Your task to perform on an android device: What's the news in Suriname? Image 0: 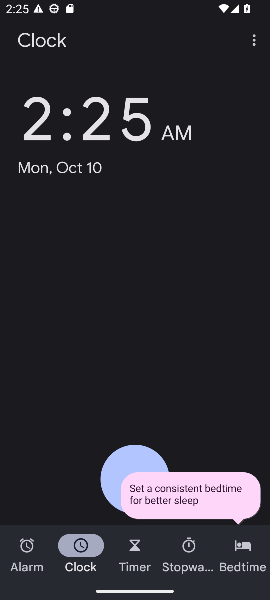
Step 0: press home button
Your task to perform on an android device: What's the news in Suriname? Image 1: 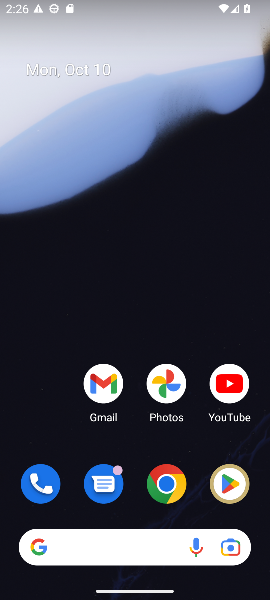
Step 1: drag from (204, 453) to (204, 246)
Your task to perform on an android device: What's the news in Suriname? Image 2: 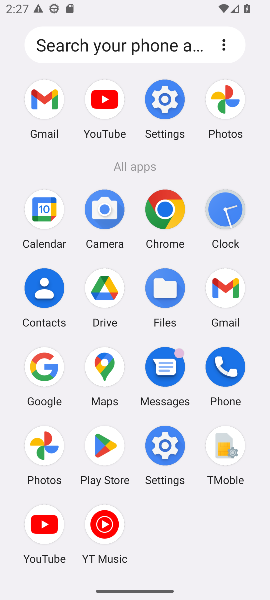
Step 2: click (156, 216)
Your task to perform on an android device: What's the news in Suriname? Image 3: 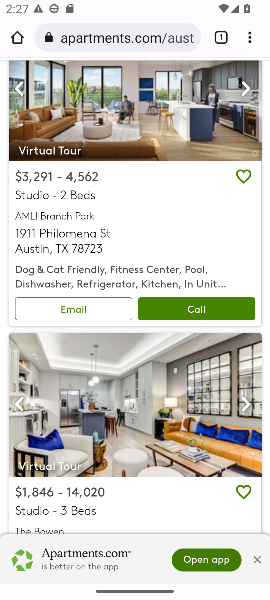
Step 3: click (134, 29)
Your task to perform on an android device: What's the news in Suriname? Image 4: 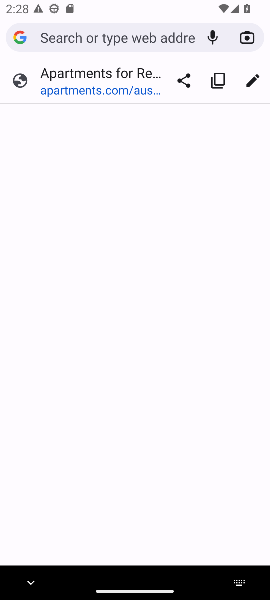
Step 4: type "suriname news"
Your task to perform on an android device: What's the news in Suriname? Image 5: 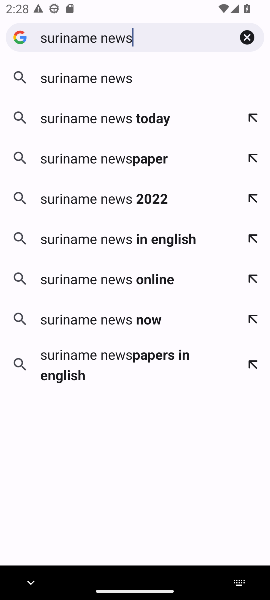
Step 5: click (156, 76)
Your task to perform on an android device: What's the news in Suriname? Image 6: 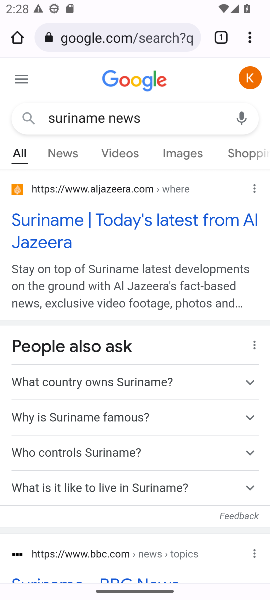
Step 6: click (65, 151)
Your task to perform on an android device: What's the news in Suriname? Image 7: 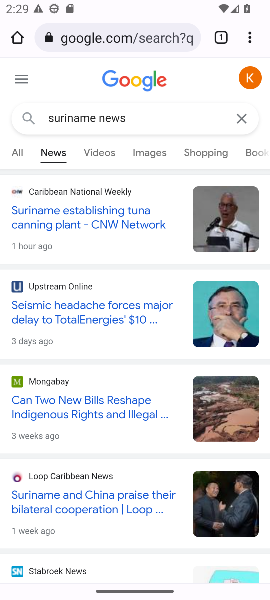
Step 7: task complete